Your task to perform on an android device: Go to Reddit.com Image 0: 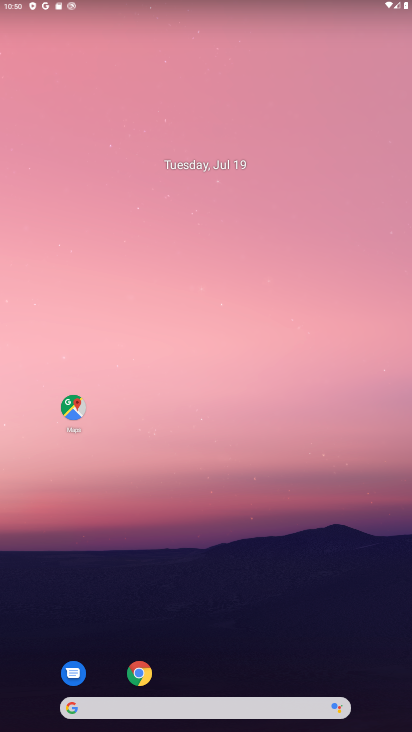
Step 0: click (140, 676)
Your task to perform on an android device: Go to Reddit.com Image 1: 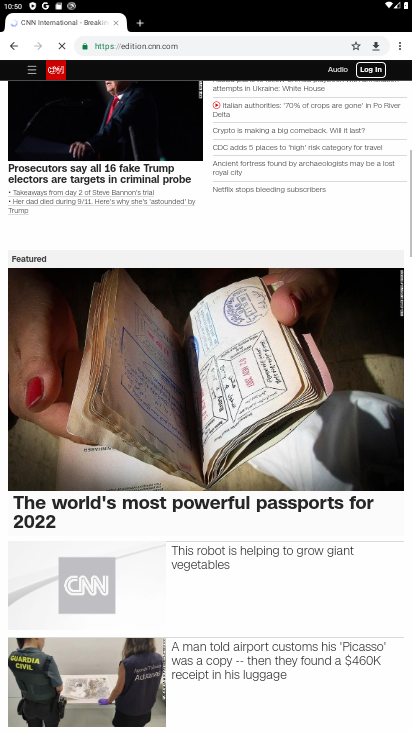
Step 1: click (198, 44)
Your task to perform on an android device: Go to Reddit.com Image 2: 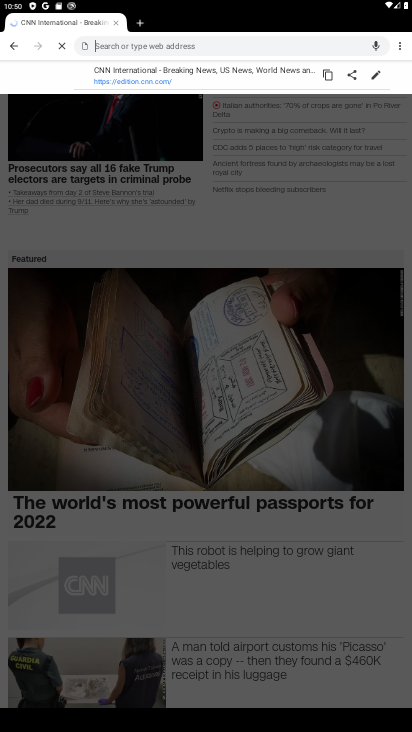
Step 2: type "Reddit.com"
Your task to perform on an android device: Go to Reddit.com Image 3: 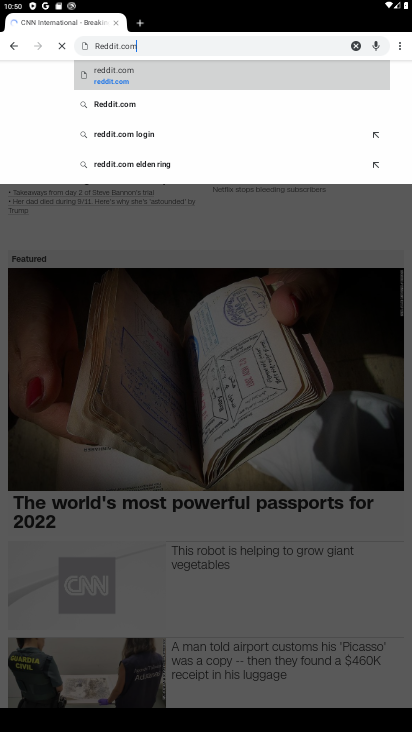
Step 3: click (110, 67)
Your task to perform on an android device: Go to Reddit.com Image 4: 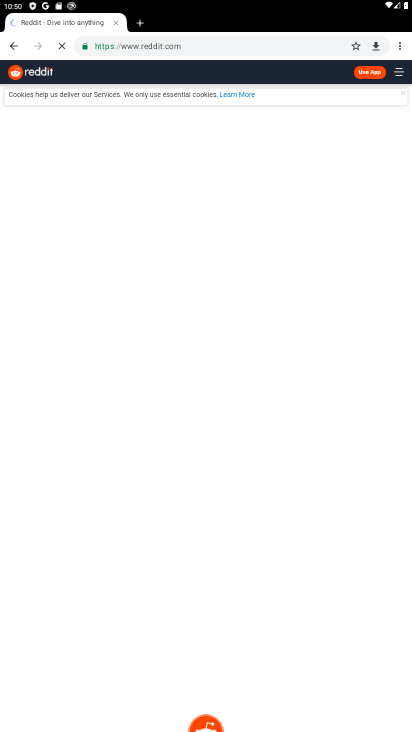
Step 4: task complete